Your task to perform on an android device: install app "Microsoft Outlook" Image 0: 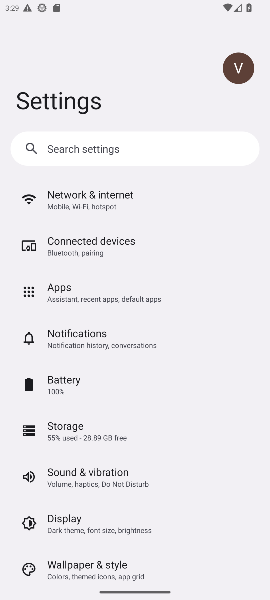
Step 0: press home button
Your task to perform on an android device: install app "Microsoft Outlook" Image 1: 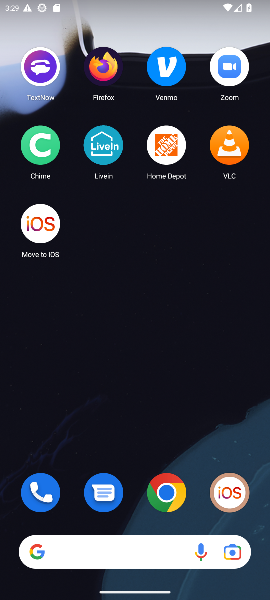
Step 1: drag from (122, 524) to (140, 88)
Your task to perform on an android device: install app "Microsoft Outlook" Image 2: 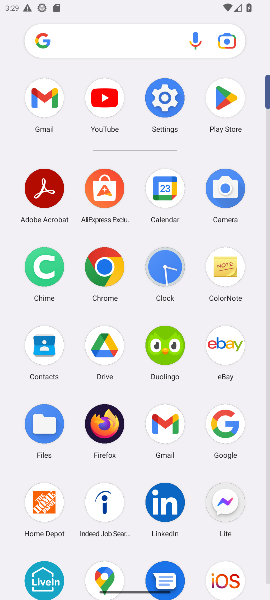
Step 2: click (214, 95)
Your task to perform on an android device: install app "Microsoft Outlook" Image 3: 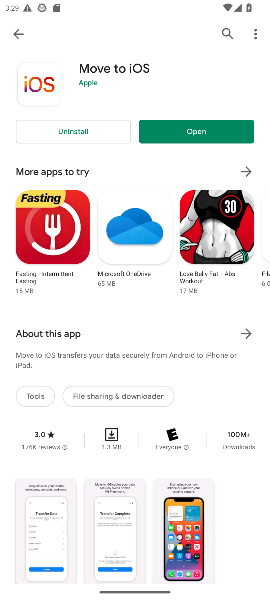
Step 3: click (228, 31)
Your task to perform on an android device: install app "Microsoft Outlook" Image 4: 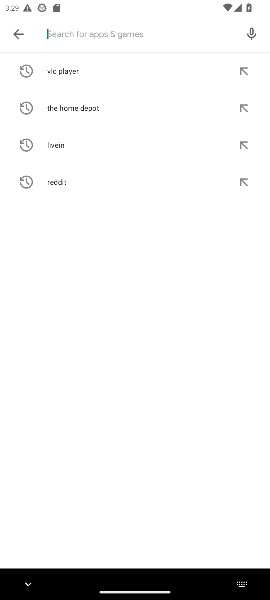
Step 4: type "microsoft outlook"
Your task to perform on an android device: install app "Microsoft Outlook" Image 5: 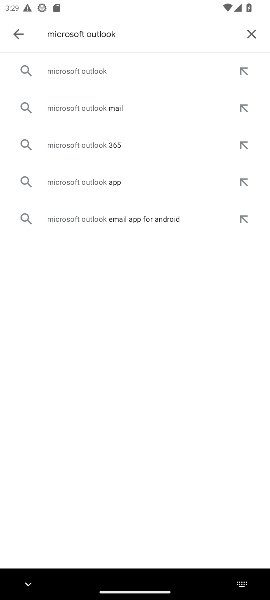
Step 5: click (59, 80)
Your task to perform on an android device: install app "Microsoft Outlook" Image 6: 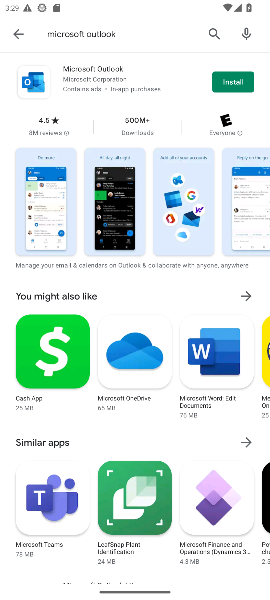
Step 6: click (231, 87)
Your task to perform on an android device: install app "Microsoft Outlook" Image 7: 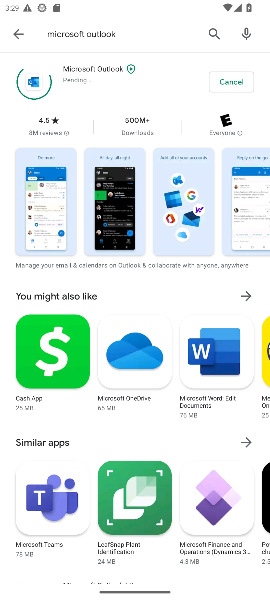
Step 7: task complete